Your task to perform on an android device: turn on improve location accuracy Image 0: 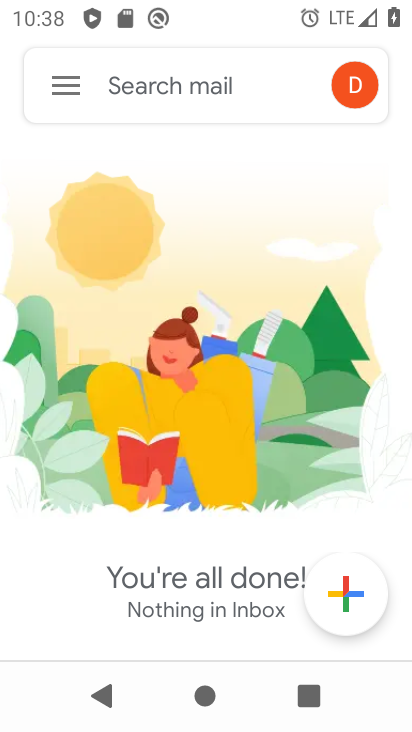
Step 0: drag from (242, 577) to (232, 211)
Your task to perform on an android device: turn on improve location accuracy Image 1: 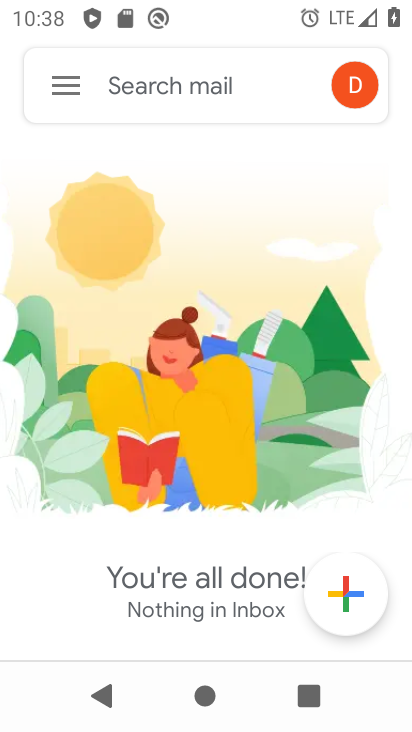
Step 1: press home button
Your task to perform on an android device: turn on improve location accuracy Image 2: 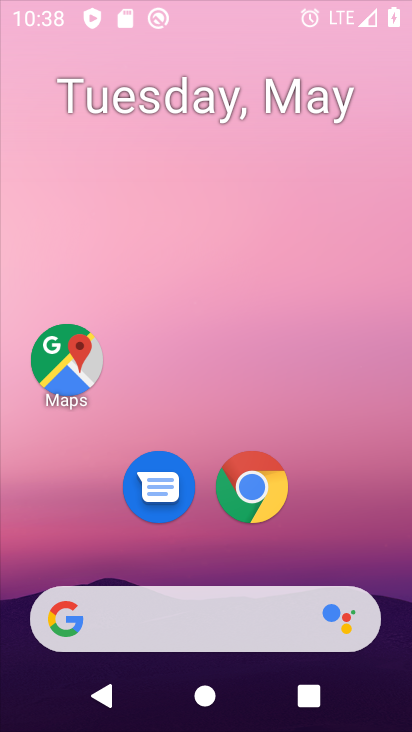
Step 2: drag from (143, 534) to (264, 0)
Your task to perform on an android device: turn on improve location accuracy Image 3: 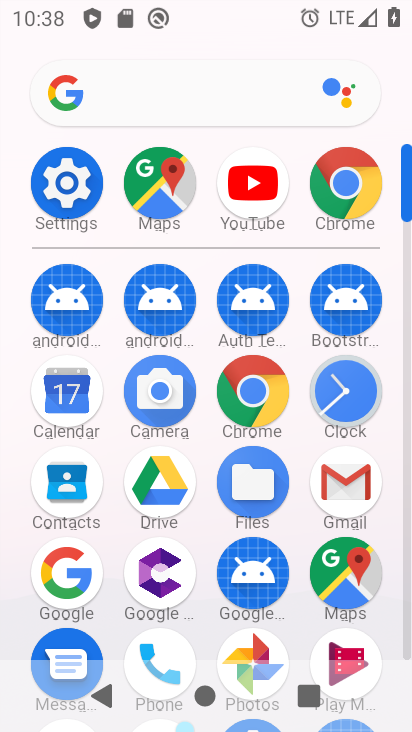
Step 3: click (62, 202)
Your task to perform on an android device: turn on improve location accuracy Image 4: 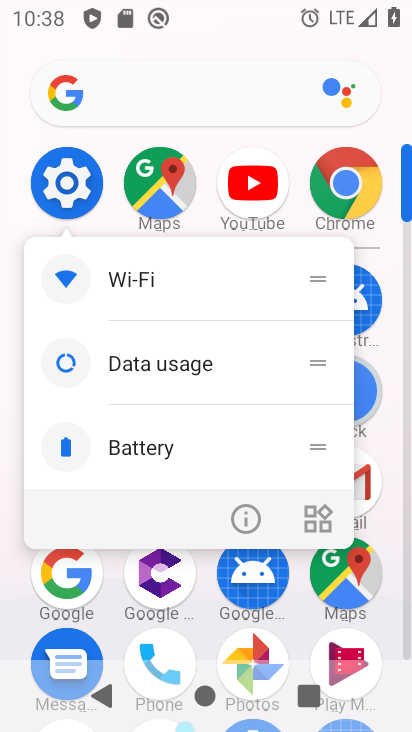
Step 4: click (245, 532)
Your task to perform on an android device: turn on improve location accuracy Image 5: 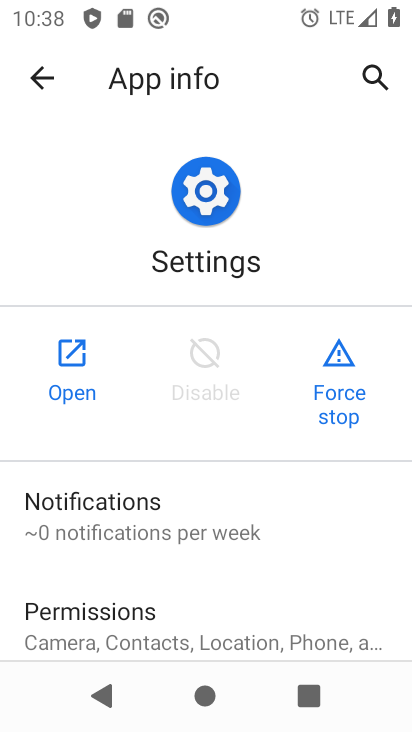
Step 5: click (77, 361)
Your task to perform on an android device: turn on improve location accuracy Image 6: 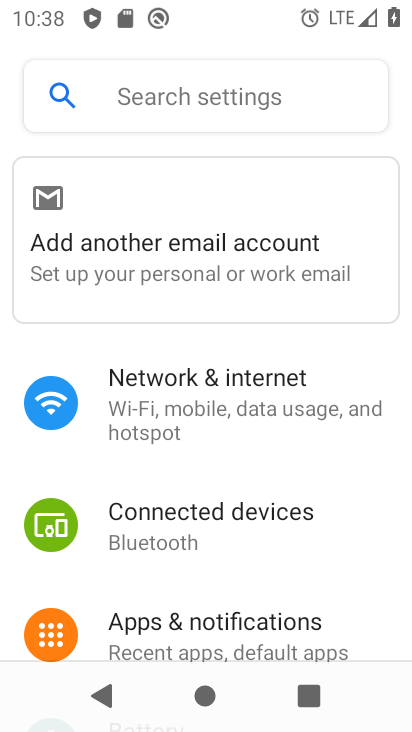
Step 6: drag from (247, 621) to (411, 22)
Your task to perform on an android device: turn on improve location accuracy Image 7: 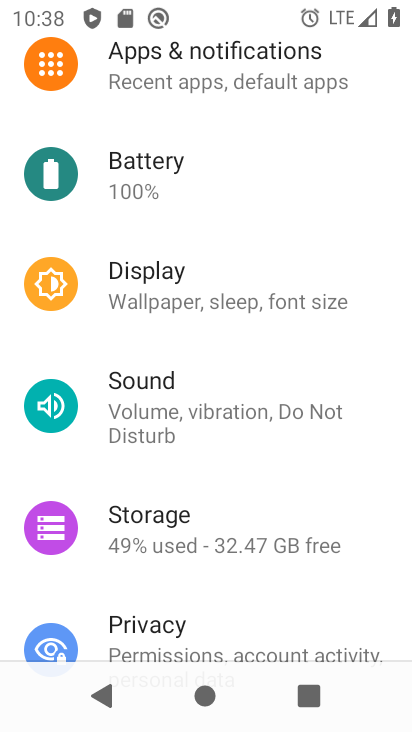
Step 7: drag from (223, 461) to (297, 6)
Your task to perform on an android device: turn on improve location accuracy Image 8: 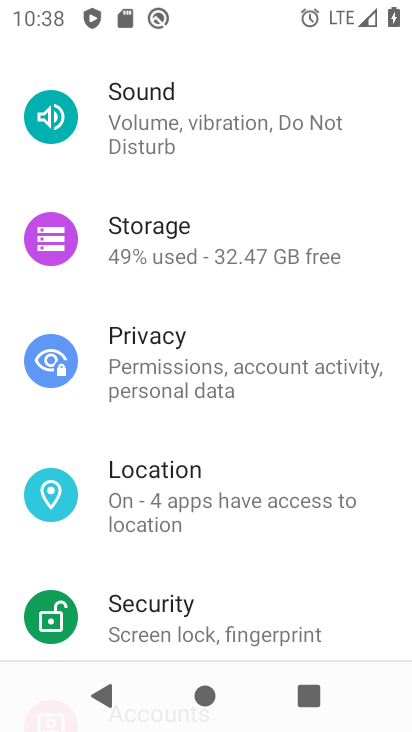
Step 8: click (210, 471)
Your task to perform on an android device: turn on improve location accuracy Image 9: 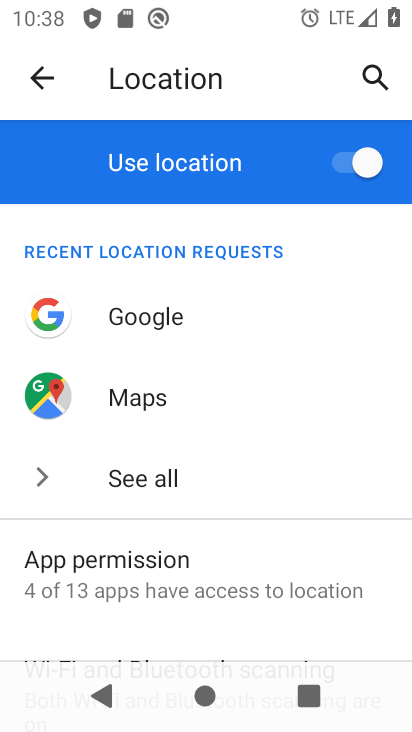
Step 9: drag from (187, 565) to (341, 132)
Your task to perform on an android device: turn on improve location accuracy Image 10: 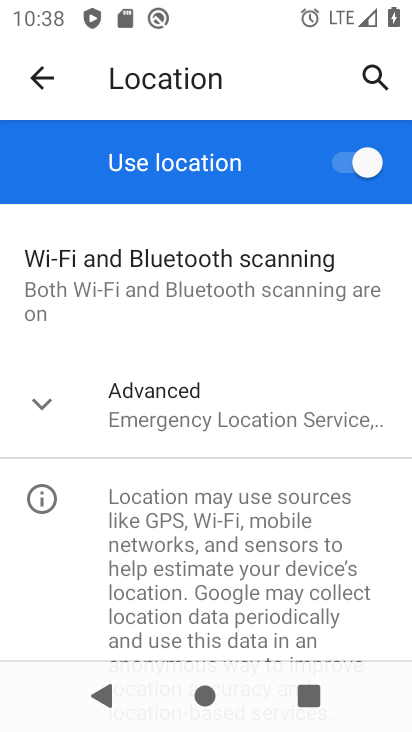
Step 10: drag from (92, 481) to (162, 373)
Your task to perform on an android device: turn on improve location accuracy Image 11: 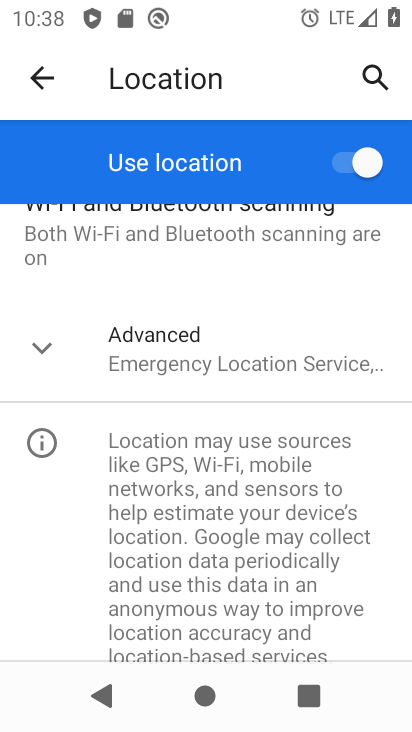
Step 11: click (152, 378)
Your task to perform on an android device: turn on improve location accuracy Image 12: 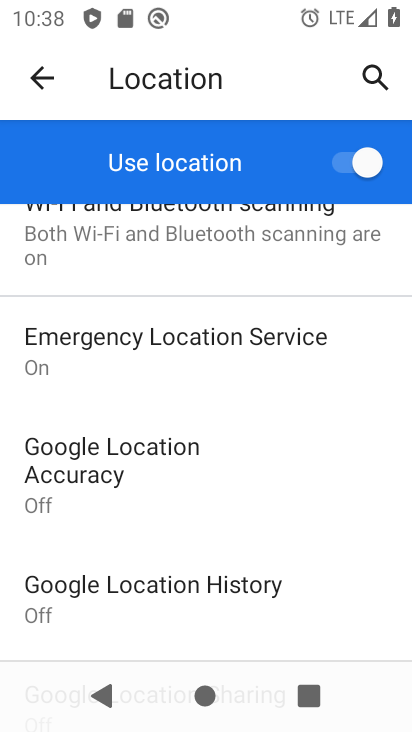
Step 12: drag from (173, 511) to (265, 216)
Your task to perform on an android device: turn on improve location accuracy Image 13: 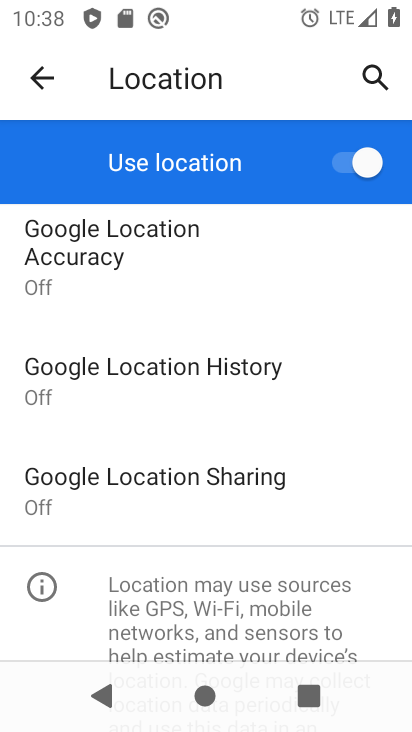
Step 13: click (132, 256)
Your task to perform on an android device: turn on improve location accuracy Image 14: 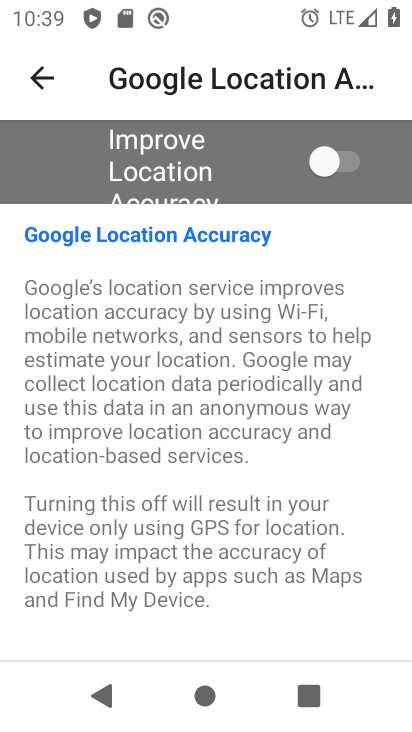
Step 14: click (319, 171)
Your task to perform on an android device: turn on improve location accuracy Image 15: 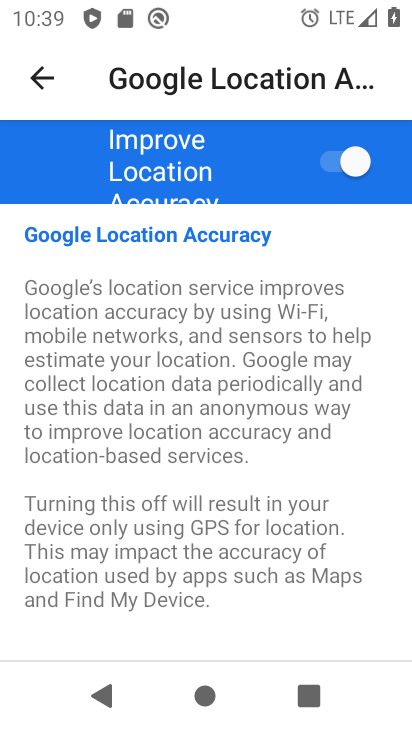
Step 15: task complete